Your task to perform on an android device: allow notifications from all sites in the chrome app Image 0: 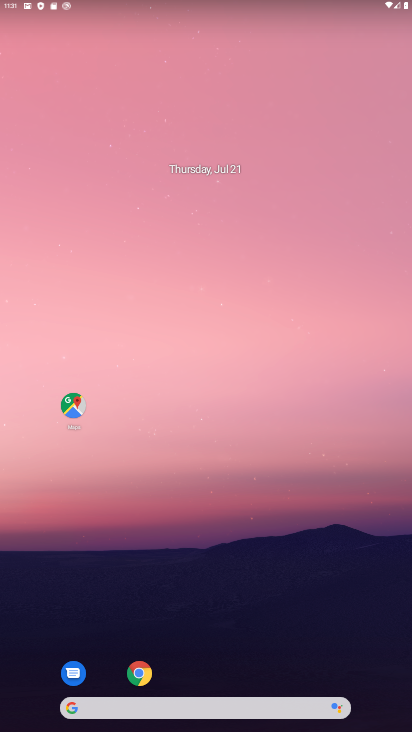
Step 0: drag from (238, 624) to (251, 351)
Your task to perform on an android device: allow notifications from all sites in the chrome app Image 1: 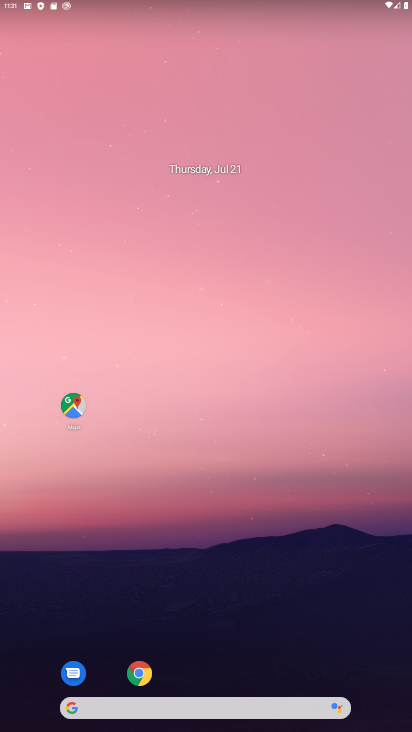
Step 1: click (134, 680)
Your task to perform on an android device: allow notifications from all sites in the chrome app Image 2: 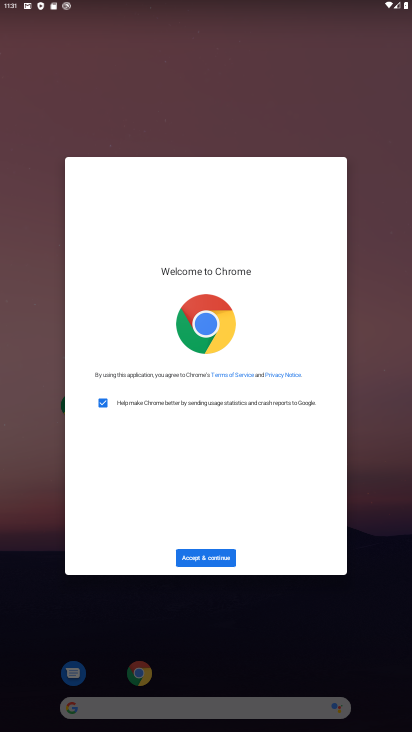
Step 2: click (186, 559)
Your task to perform on an android device: allow notifications from all sites in the chrome app Image 3: 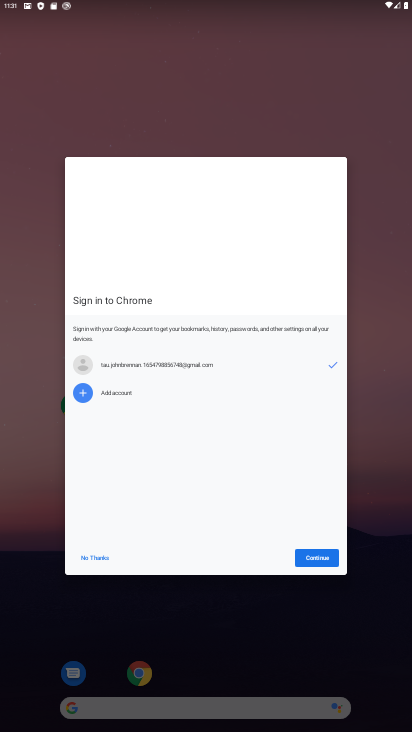
Step 3: click (331, 563)
Your task to perform on an android device: allow notifications from all sites in the chrome app Image 4: 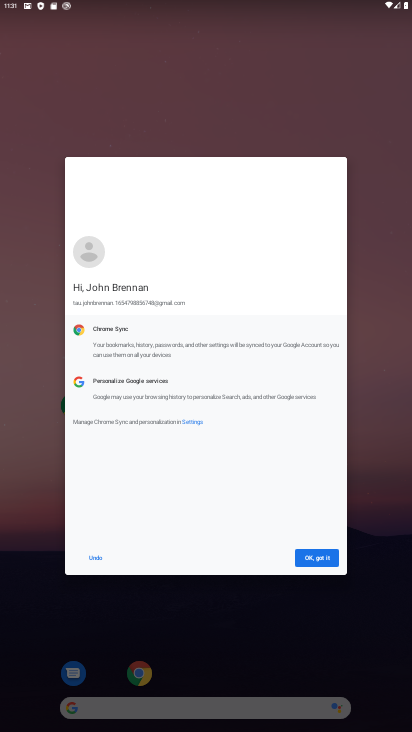
Step 4: click (331, 563)
Your task to perform on an android device: allow notifications from all sites in the chrome app Image 5: 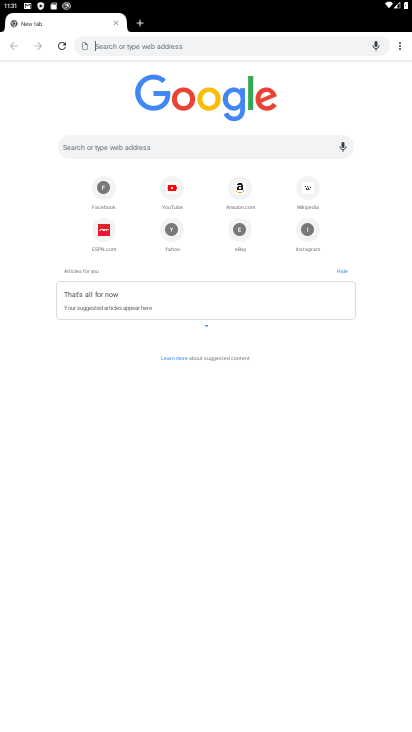
Step 5: task complete